Your task to perform on an android device: turn on bluetooth scan Image 0: 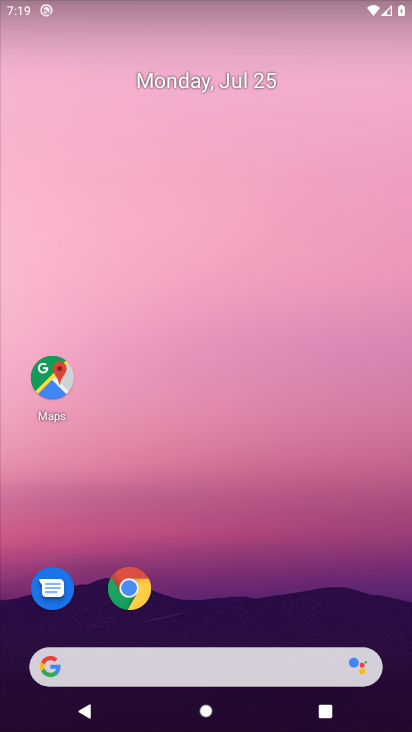
Step 0: drag from (222, 497) to (245, 159)
Your task to perform on an android device: turn on bluetooth scan Image 1: 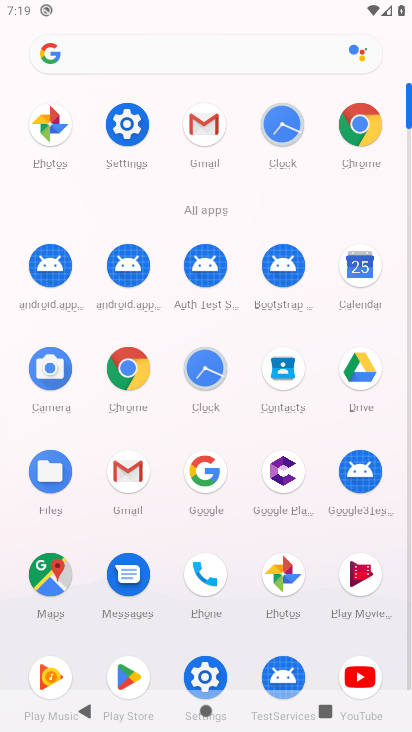
Step 1: click (199, 672)
Your task to perform on an android device: turn on bluetooth scan Image 2: 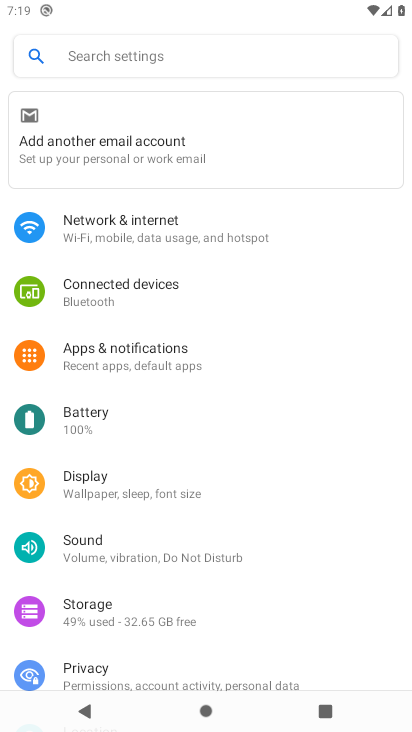
Step 2: click (127, 297)
Your task to perform on an android device: turn on bluetooth scan Image 3: 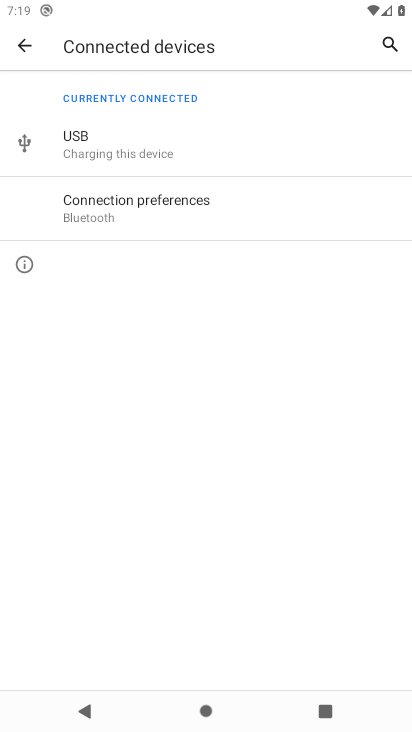
Step 3: click (204, 220)
Your task to perform on an android device: turn on bluetooth scan Image 4: 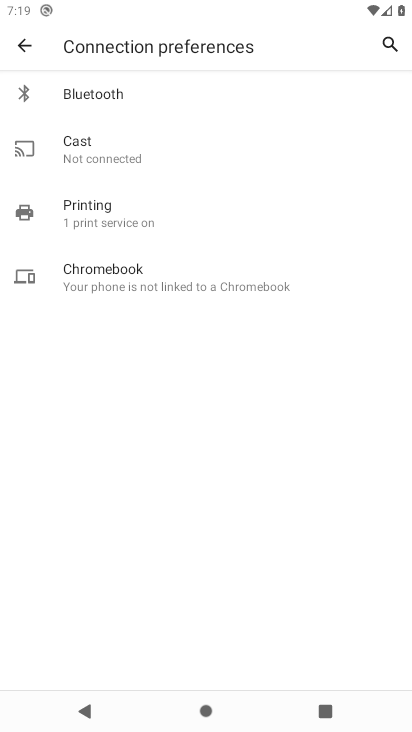
Step 4: click (183, 93)
Your task to perform on an android device: turn on bluetooth scan Image 5: 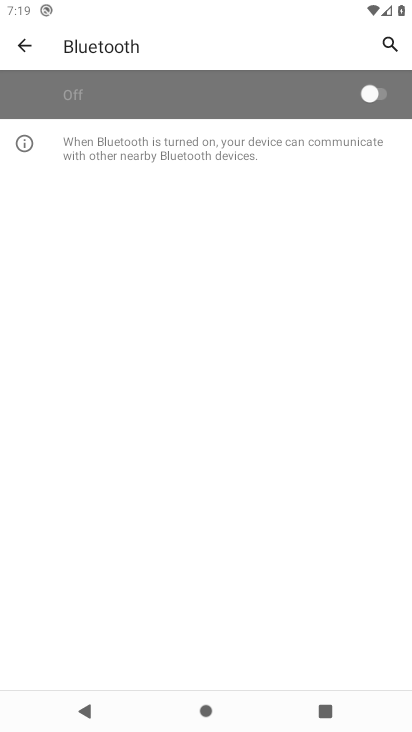
Step 5: click (379, 96)
Your task to perform on an android device: turn on bluetooth scan Image 6: 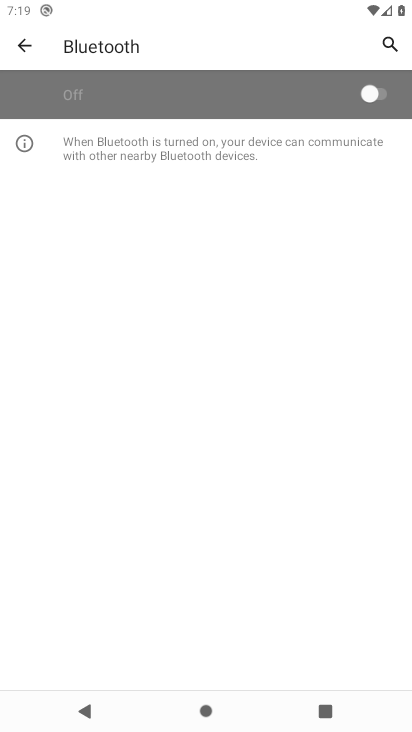
Step 6: click (367, 93)
Your task to perform on an android device: turn on bluetooth scan Image 7: 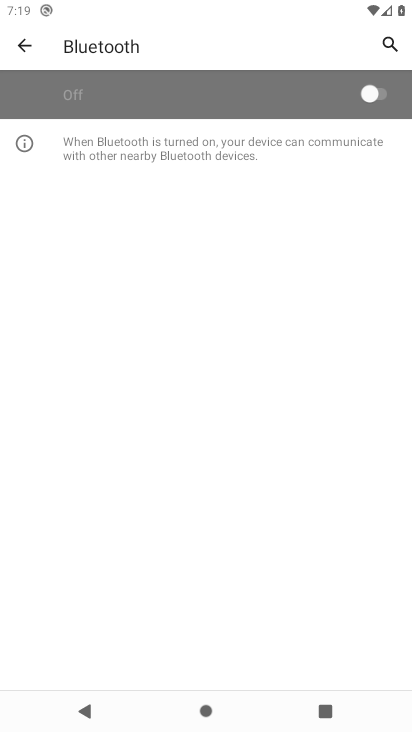
Step 7: click (371, 95)
Your task to perform on an android device: turn on bluetooth scan Image 8: 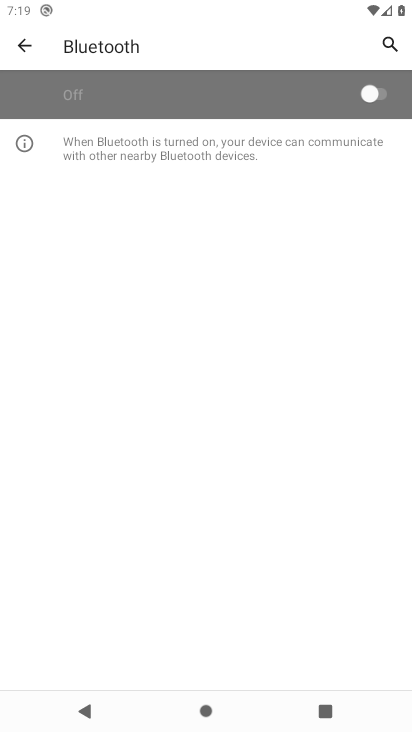
Step 8: click (374, 95)
Your task to perform on an android device: turn on bluetooth scan Image 9: 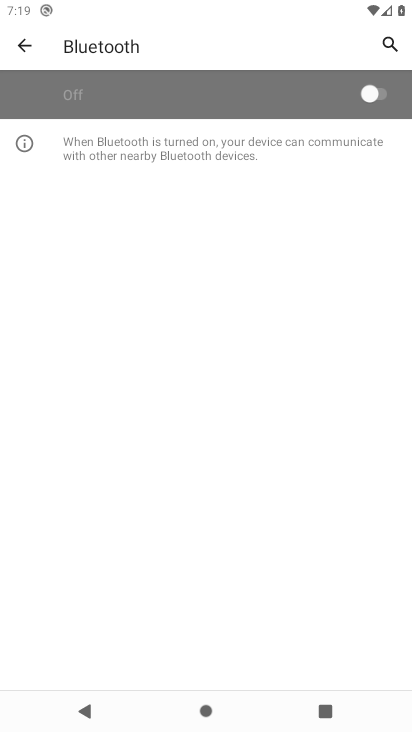
Step 9: click (374, 95)
Your task to perform on an android device: turn on bluetooth scan Image 10: 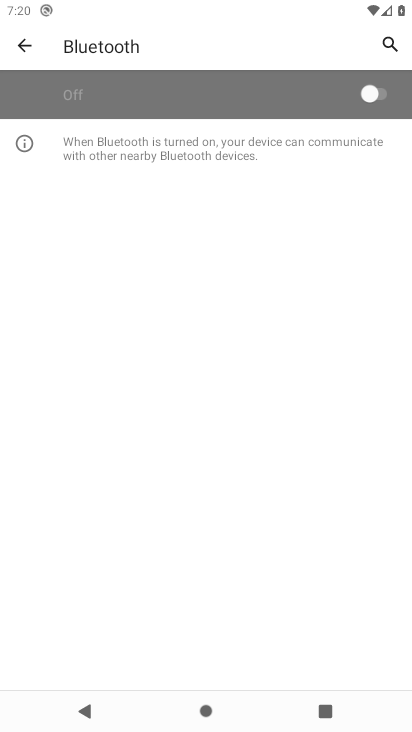
Step 10: task complete